Your task to perform on an android device: set the stopwatch Image 0: 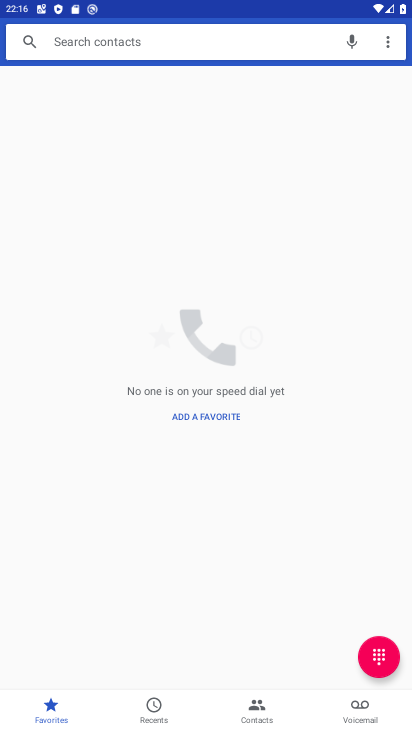
Step 0: press home button
Your task to perform on an android device: set the stopwatch Image 1: 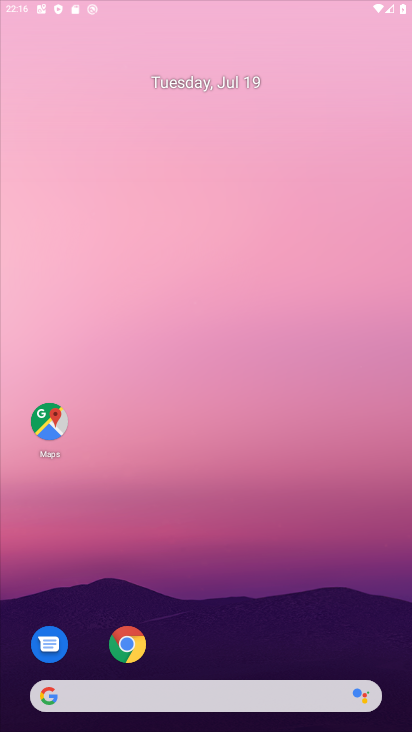
Step 1: drag from (264, 671) to (283, 29)
Your task to perform on an android device: set the stopwatch Image 2: 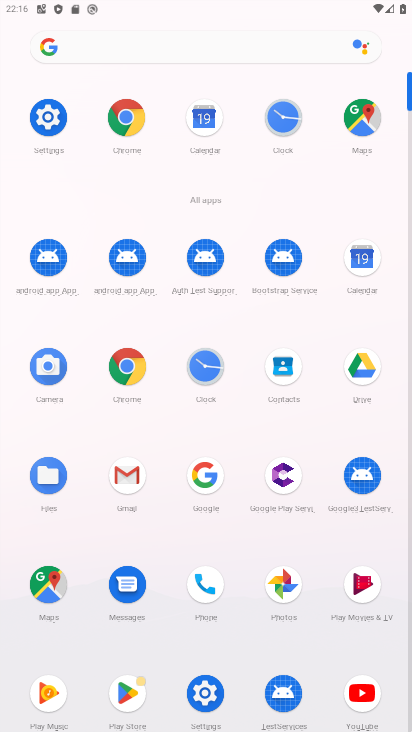
Step 2: click (208, 382)
Your task to perform on an android device: set the stopwatch Image 3: 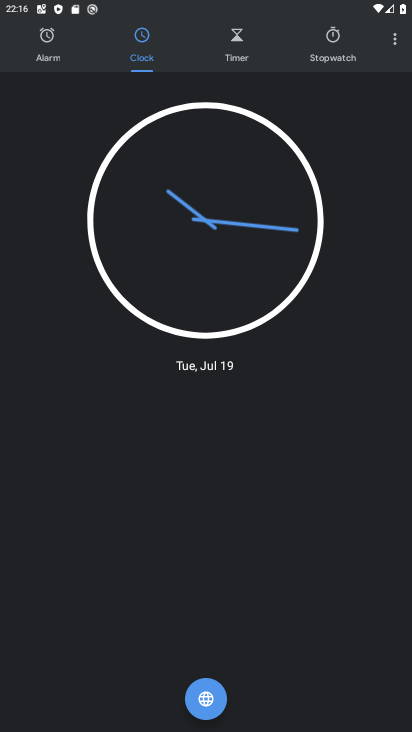
Step 3: click (330, 57)
Your task to perform on an android device: set the stopwatch Image 4: 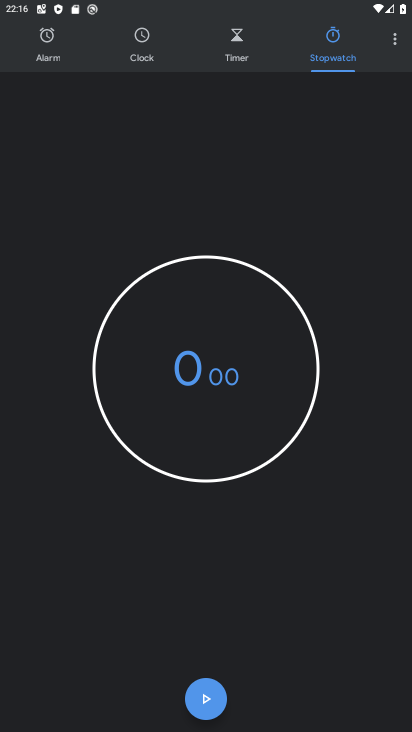
Step 4: click (217, 671)
Your task to perform on an android device: set the stopwatch Image 5: 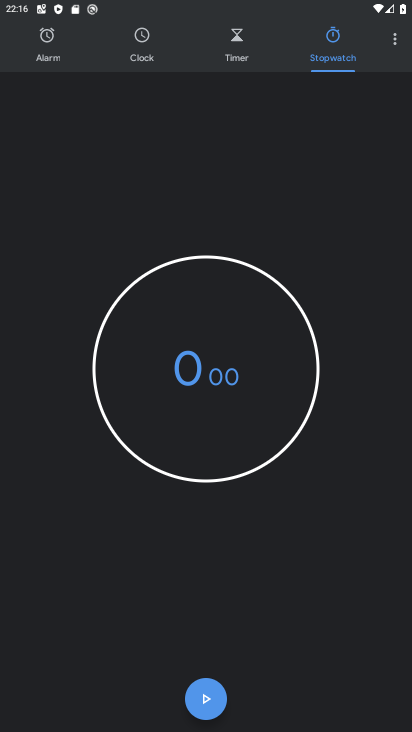
Step 5: click (204, 685)
Your task to perform on an android device: set the stopwatch Image 6: 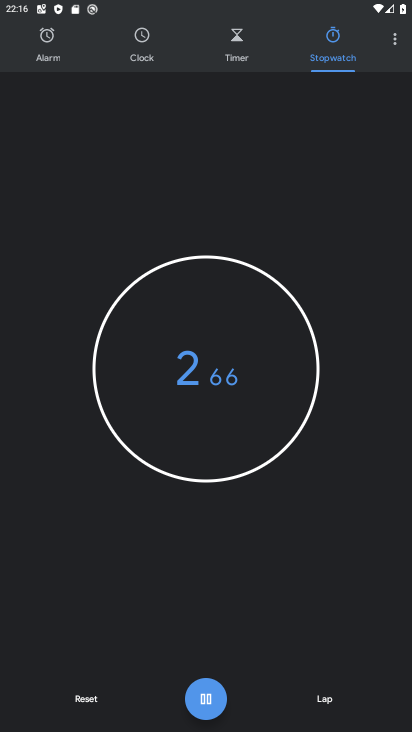
Step 6: task complete